Your task to perform on an android device: toggle data saver in the chrome app Image 0: 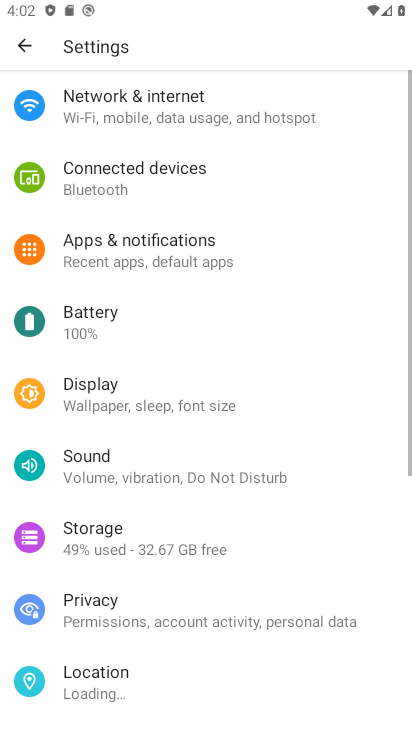
Step 0: press home button
Your task to perform on an android device: toggle data saver in the chrome app Image 1: 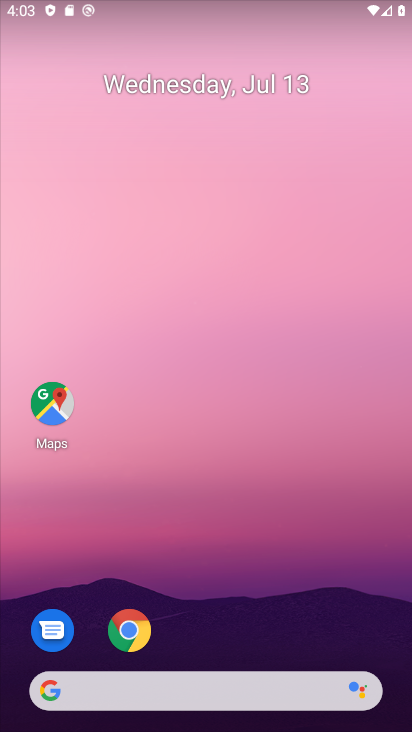
Step 1: drag from (262, 641) to (157, 182)
Your task to perform on an android device: toggle data saver in the chrome app Image 2: 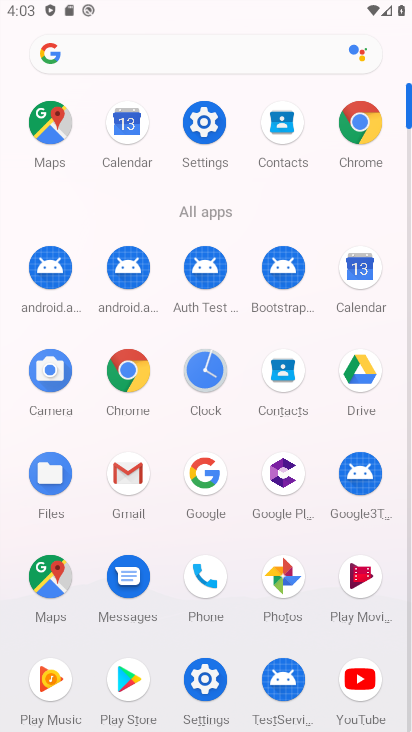
Step 2: click (359, 118)
Your task to perform on an android device: toggle data saver in the chrome app Image 3: 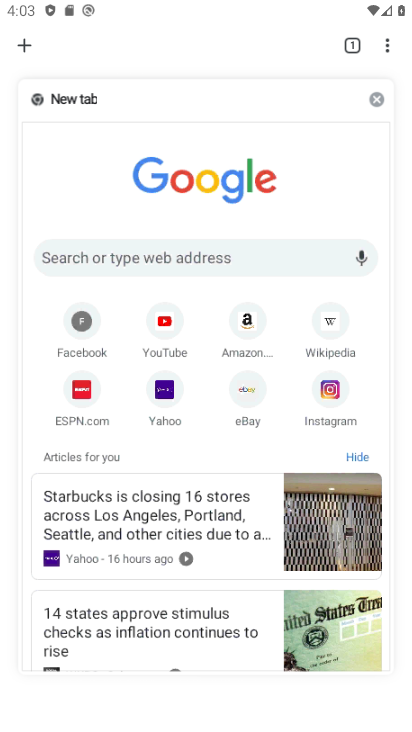
Step 3: click (392, 41)
Your task to perform on an android device: toggle data saver in the chrome app Image 4: 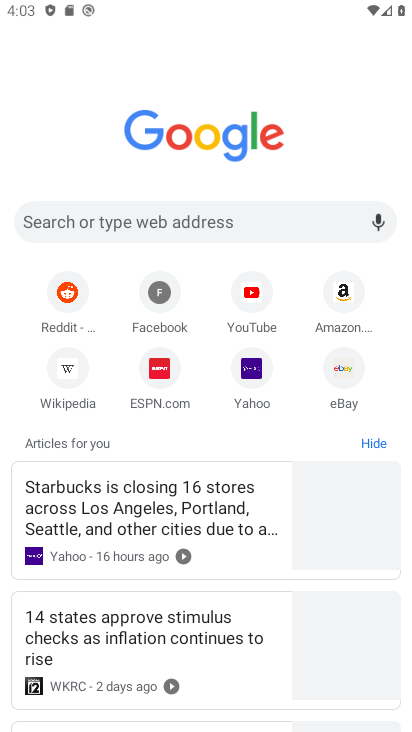
Step 4: drag from (392, 41) to (226, 439)
Your task to perform on an android device: toggle data saver in the chrome app Image 5: 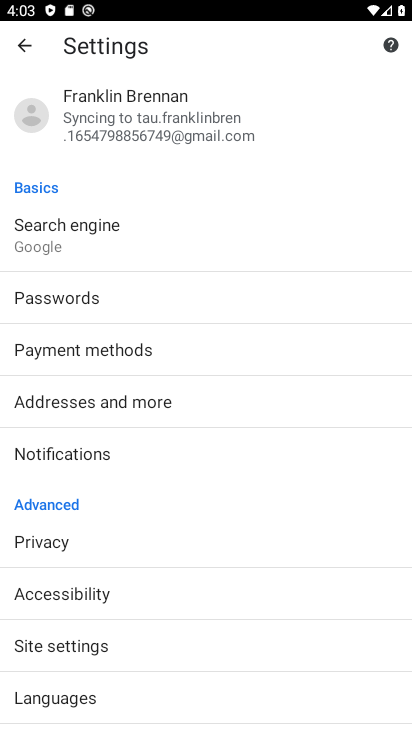
Step 5: drag from (194, 622) to (242, 215)
Your task to perform on an android device: toggle data saver in the chrome app Image 6: 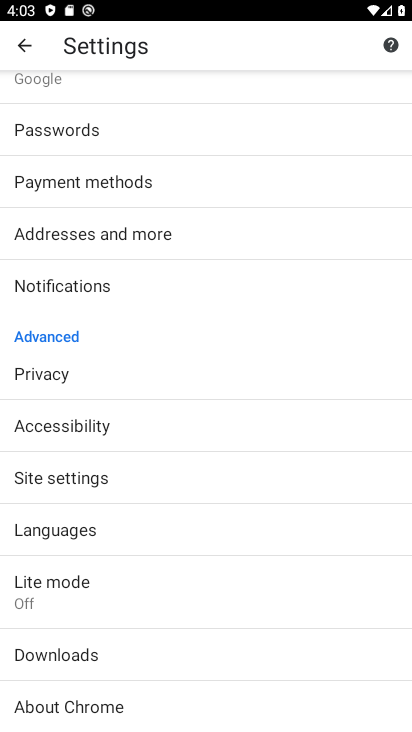
Step 6: drag from (162, 655) to (255, 144)
Your task to perform on an android device: toggle data saver in the chrome app Image 7: 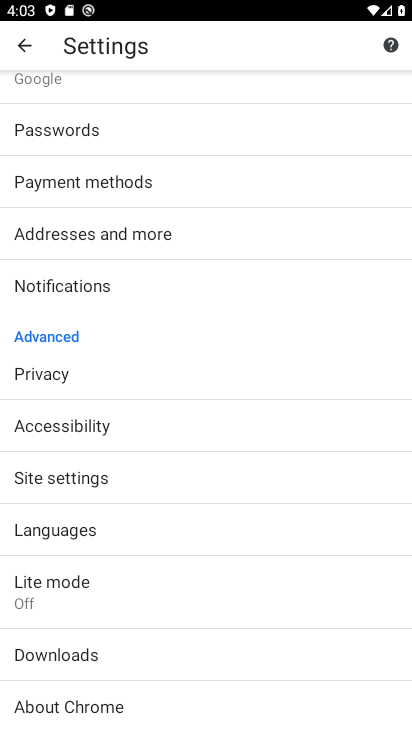
Step 7: drag from (290, 498) to (344, 109)
Your task to perform on an android device: toggle data saver in the chrome app Image 8: 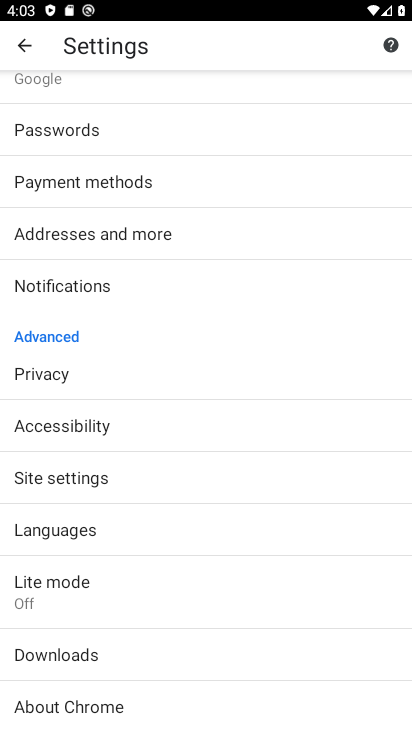
Step 8: click (45, 590)
Your task to perform on an android device: toggle data saver in the chrome app Image 9: 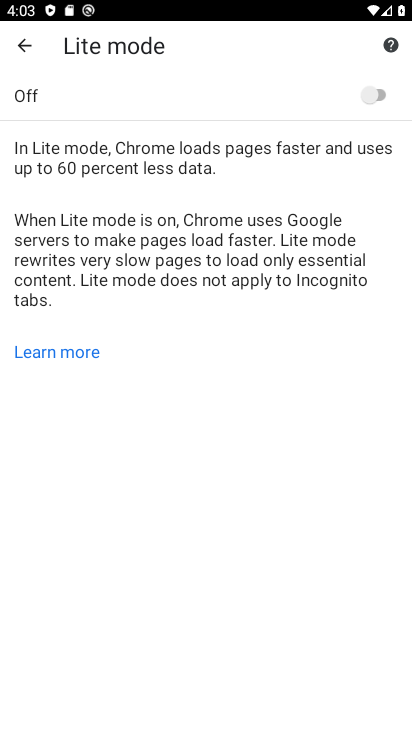
Step 9: click (374, 98)
Your task to perform on an android device: toggle data saver in the chrome app Image 10: 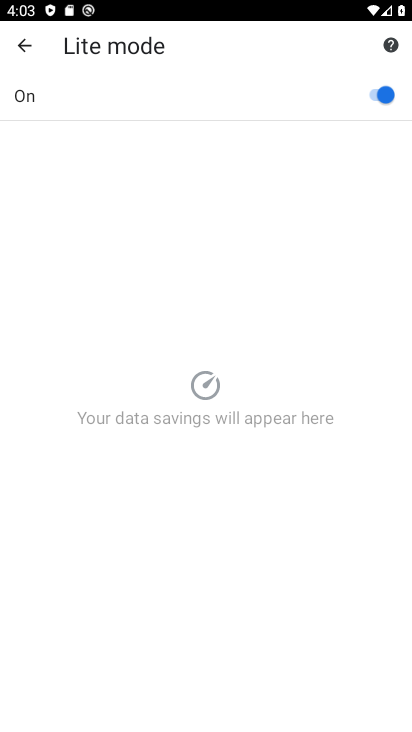
Step 10: task complete